Your task to perform on an android device: Search for asus zenbook on costco, select the first entry, and add it to the cart. Image 0: 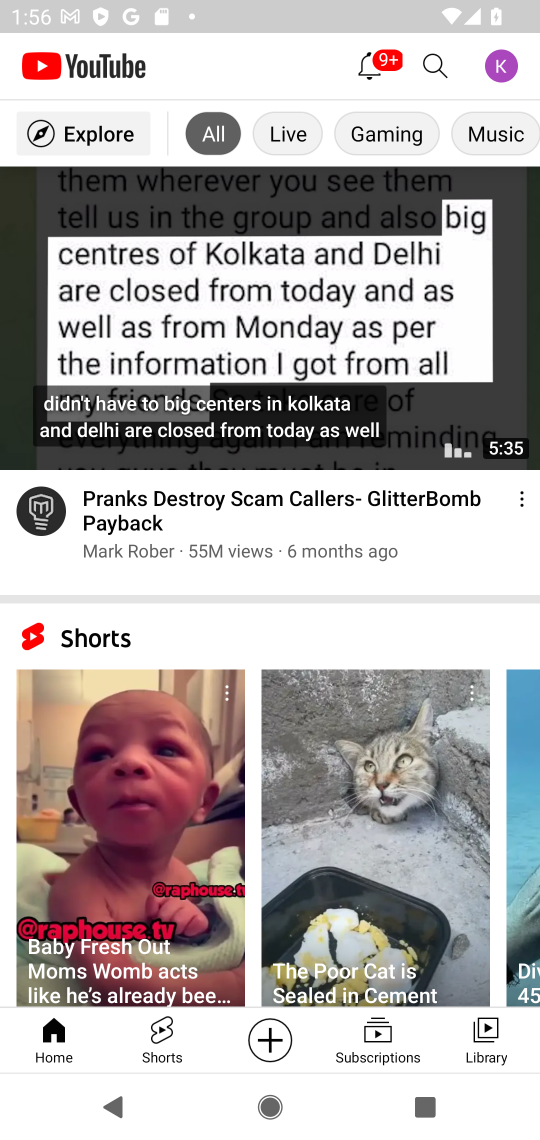
Step 0: task complete